Your task to perform on an android device: turn pop-ups on in chrome Image 0: 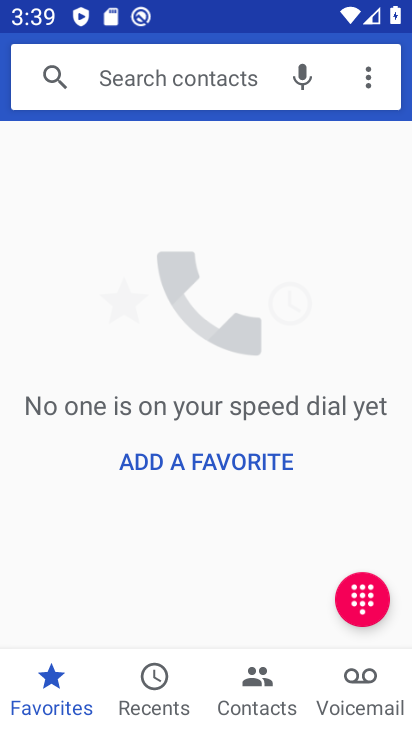
Step 0: press home button
Your task to perform on an android device: turn pop-ups on in chrome Image 1: 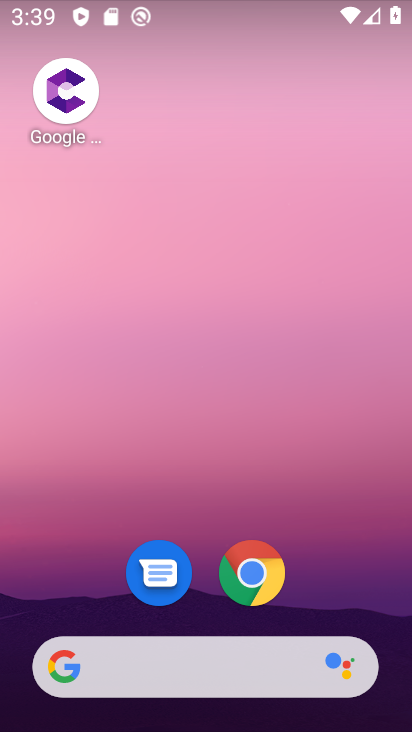
Step 1: click (267, 553)
Your task to perform on an android device: turn pop-ups on in chrome Image 2: 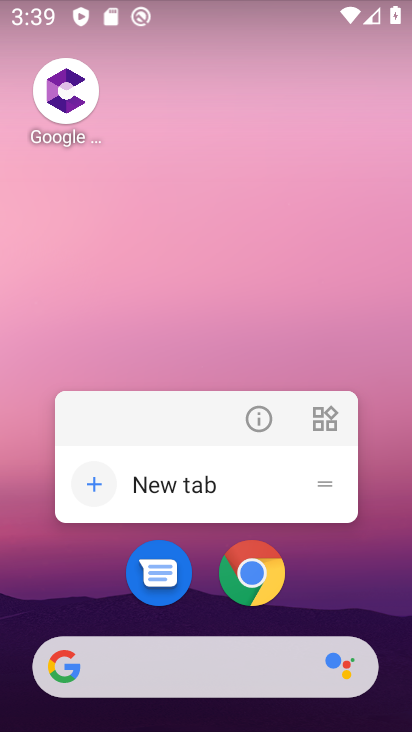
Step 2: click (257, 566)
Your task to perform on an android device: turn pop-ups on in chrome Image 3: 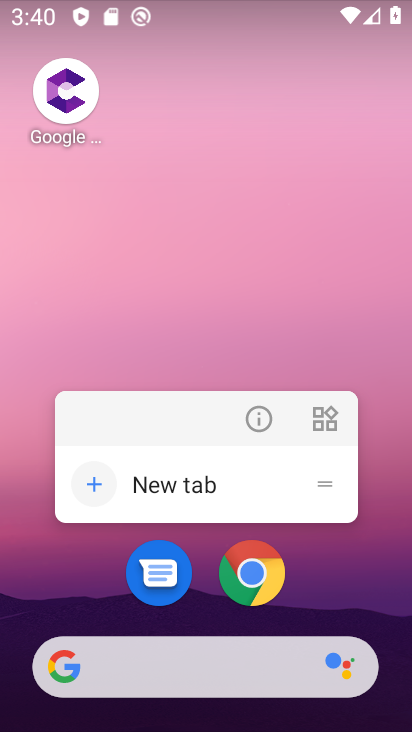
Step 3: click (253, 553)
Your task to perform on an android device: turn pop-ups on in chrome Image 4: 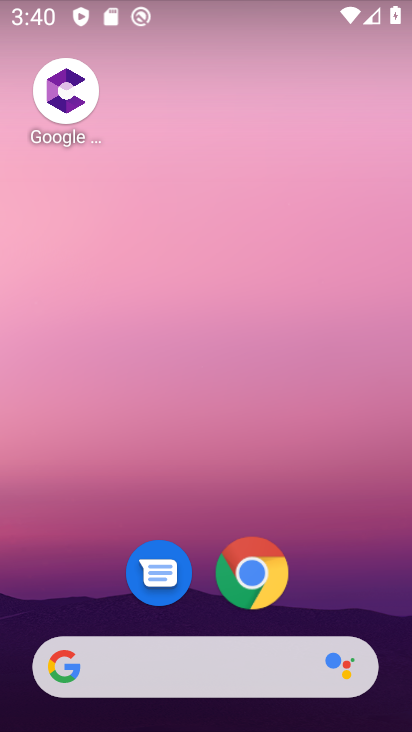
Step 4: click (251, 564)
Your task to perform on an android device: turn pop-ups on in chrome Image 5: 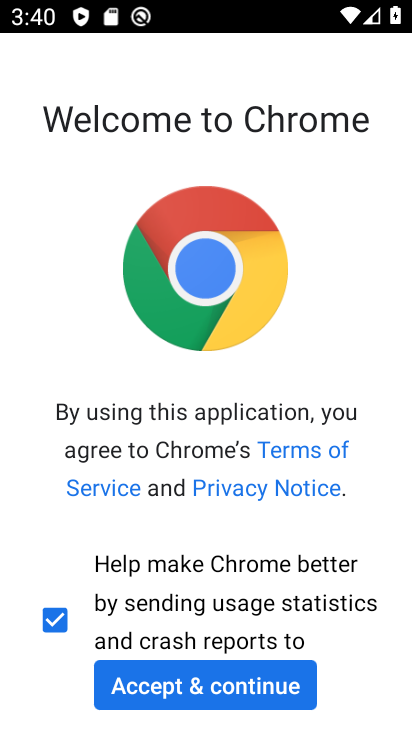
Step 5: click (192, 689)
Your task to perform on an android device: turn pop-ups on in chrome Image 6: 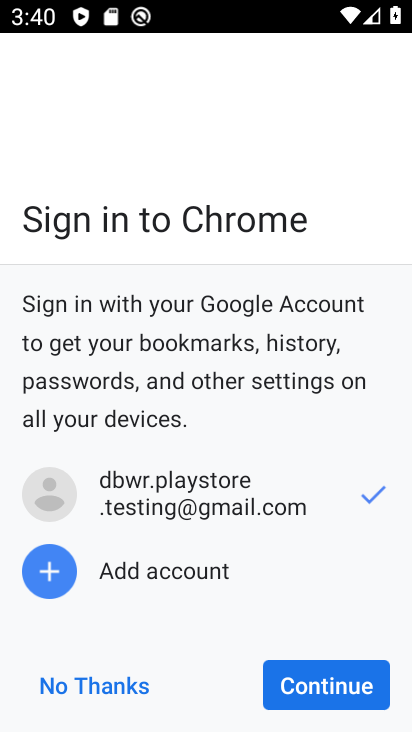
Step 6: click (329, 686)
Your task to perform on an android device: turn pop-ups on in chrome Image 7: 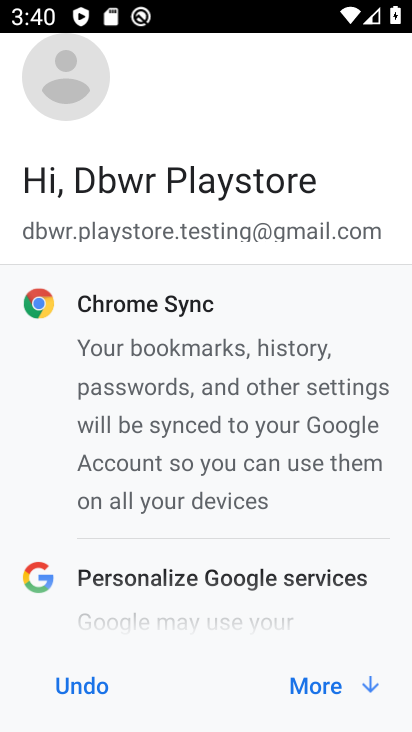
Step 7: click (329, 686)
Your task to perform on an android device: turn pop-ups on in chrome Image 8: 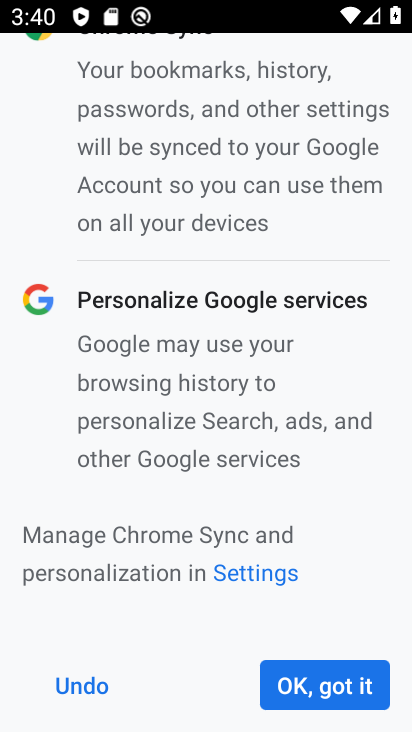
Step 8: click (316, 692)
Your task to perform on an android device: turn pop-ups on in chrome Image 9: 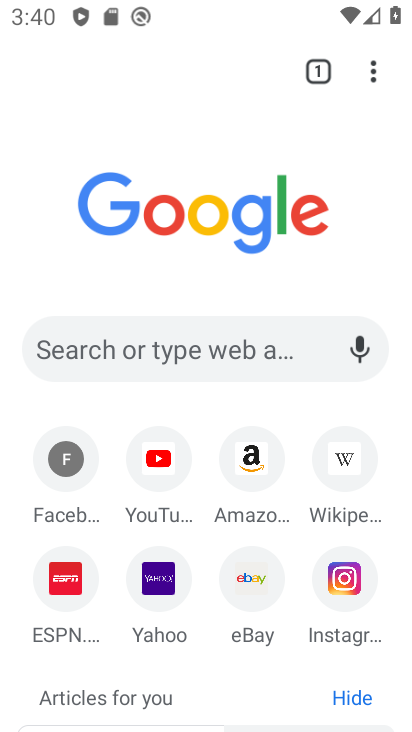
Step 9: click (373, 79)
Your task to perform on an android device: turn pop-ups on in chrome Image 10: 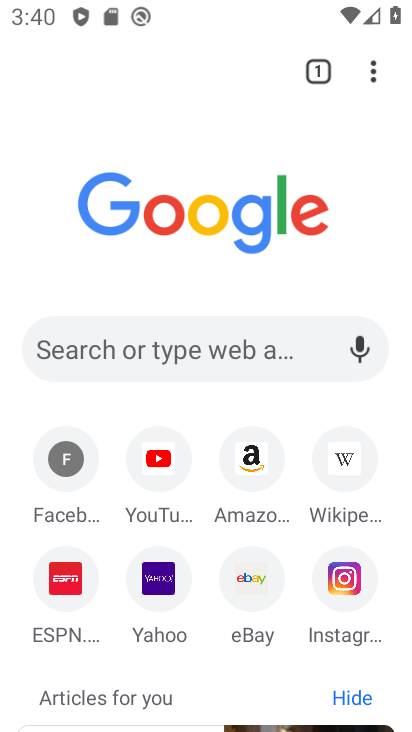
Step 10: click (374, 73)
Your task to perform on an android device: turn pop-ups on in chrome Image 11: 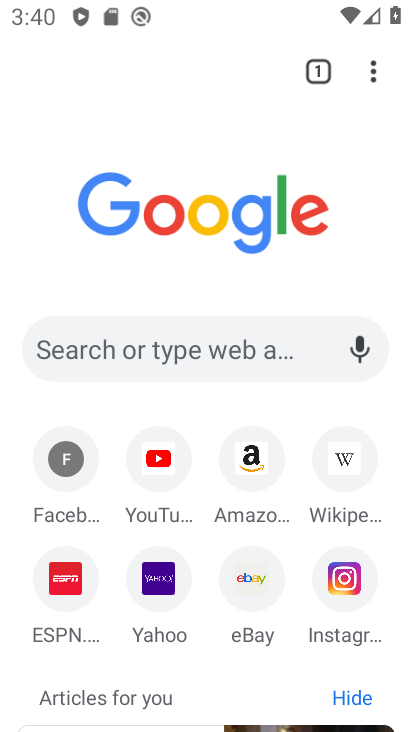
Step 11: click (370, 83)
Your task to perform on an android device: turn pop-ups on in chrome Image 12: 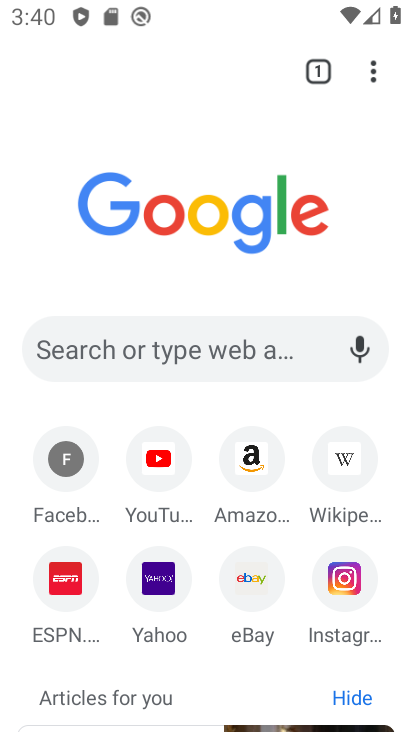
Step 12: click (378, 68)
Your task to perform on an android device: turn pop-ups on in chrome Image 13: 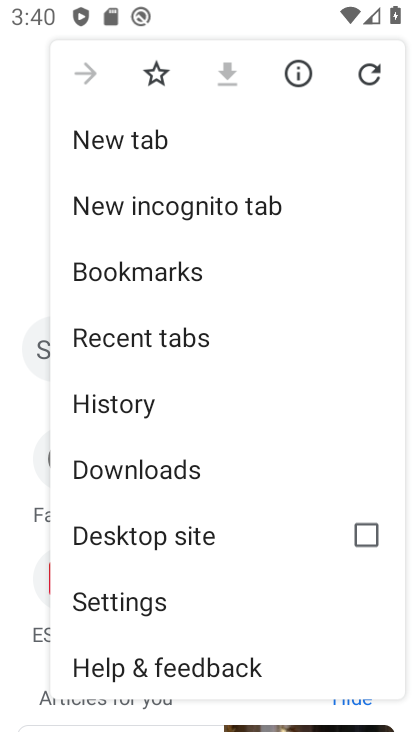
Step 13: click (146, 596)
Your task to perform on an android device: turn pop-ups on in chrome Image 14: 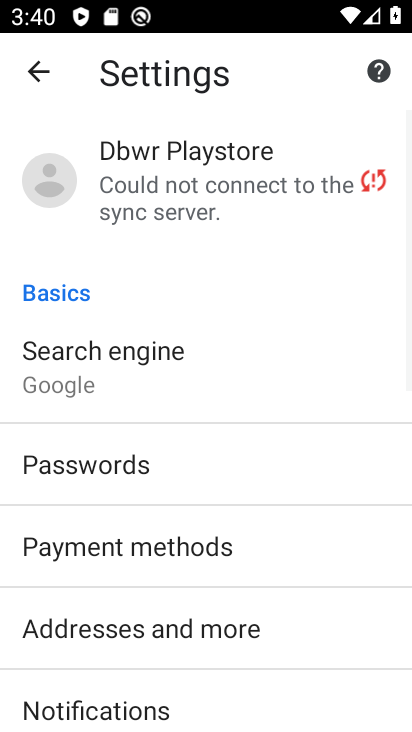
Step 14: drag from (151, 646) to (149, 327)
Your task to perform on an android device: turn pop-ups on in chrome Image 15: 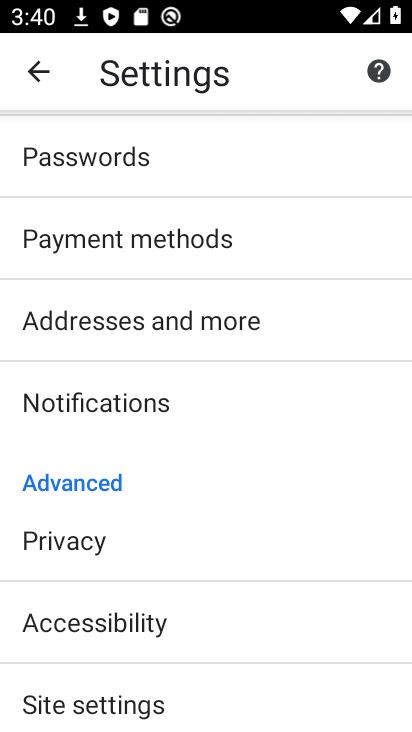
Step 15: click (75, 703)
Your task to perform on an android device: turn pop-ups on in chrome Image 16: 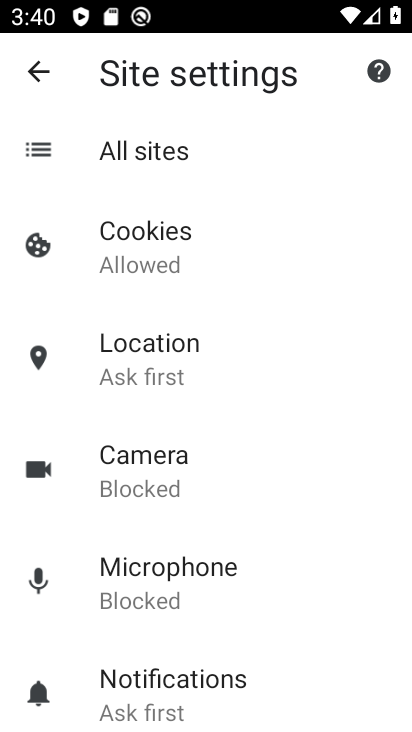
Step 16: drag from (178, 694) to (205, 445)
Your task to perform on an android device: turn pop-ups on in chrome Image 17: 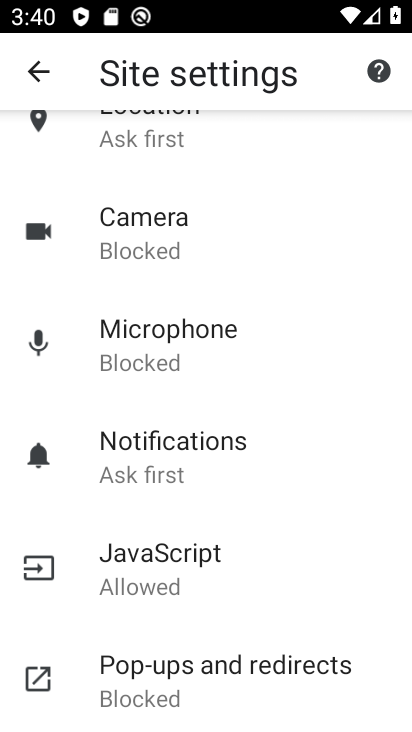
Step 17: click (184, 681)
Your task to perform on an android device: turn pop-ups on in chrome Image 18: 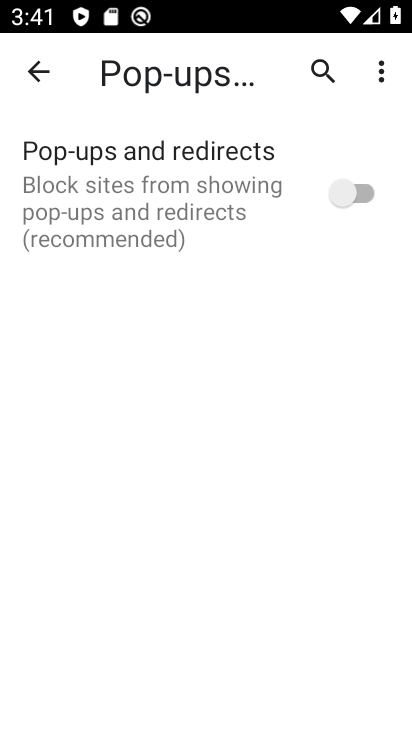
Step 18: click (259, 174)
Your task to perform on an android device: turn pop-ups on in chrome Image 19: 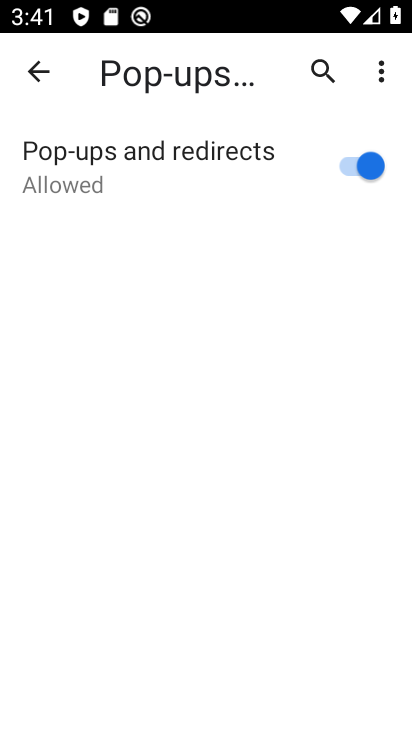
Step 19: task complete